Your task to perform on an android device: change keyboard looks Image 0: 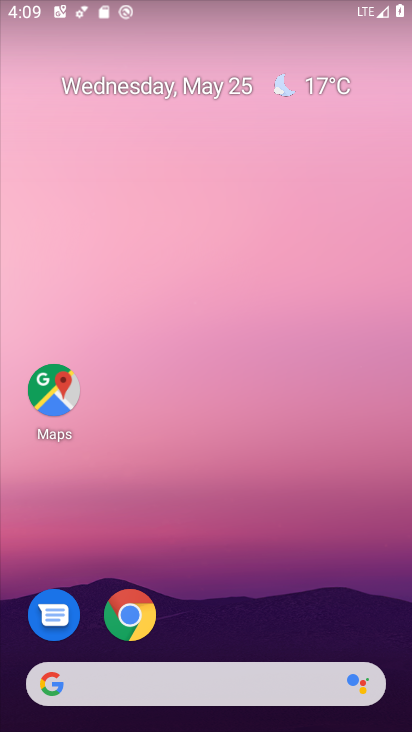
Step 0: drag from (246, 337) to (195, 22)
Your task to perform on an android device: change keyboard looks Image 1: 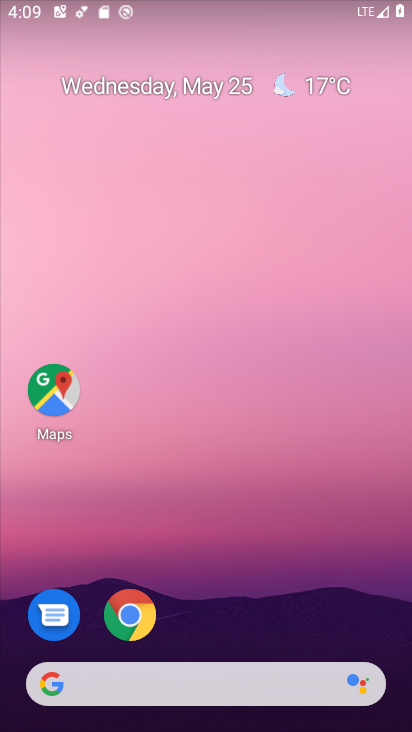
Step 1: drag from (228, 533) to (215, 80)
Your task to perform on an android device: change keyboard looks Image 2: 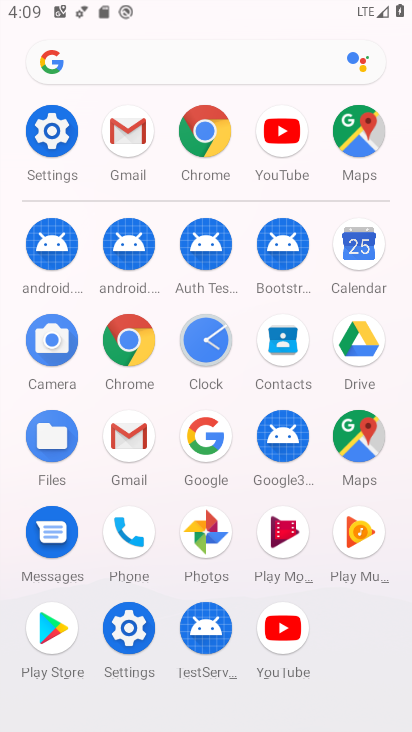
Step 2: click (46, 133)
Your task to perform on an android device: change keyboard looks Image 3: 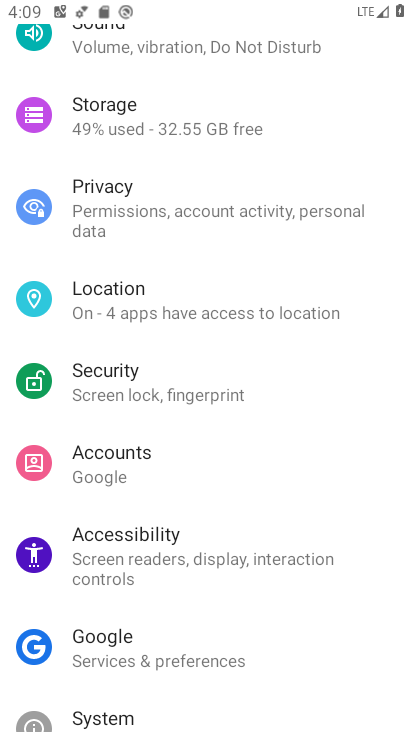
Step 3: drag from (235, 615) to (237, 223)
Your task to perform on an android device: change keyboard looks Image 4: 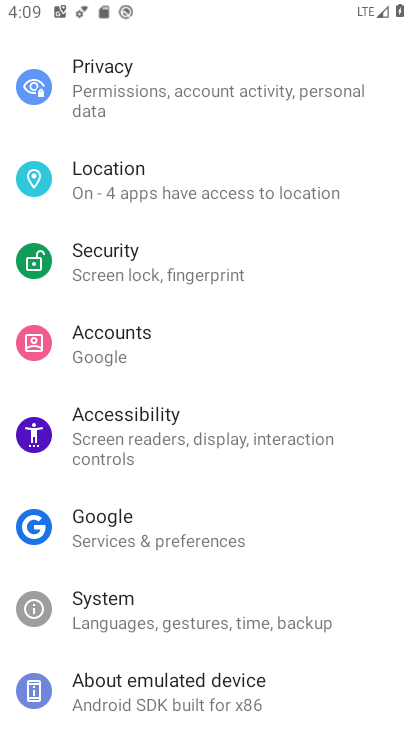
Step 4: click (175, 614)
Your task to perform on an android device: change keyboard looks Image 5: 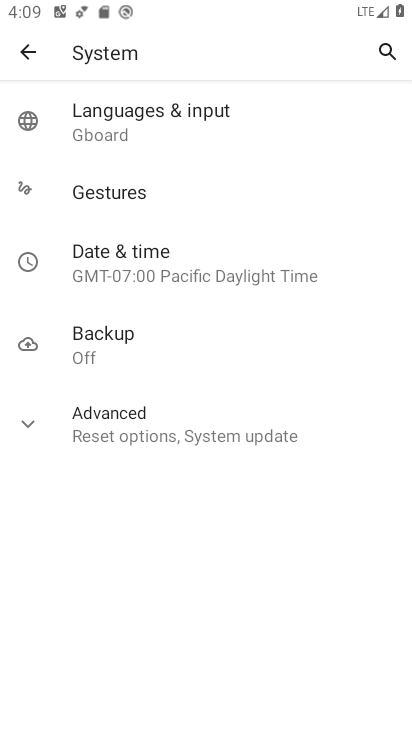
Step 5: click (145, 125)
Your task to perform on an android device: change keyboard looks Image 6: 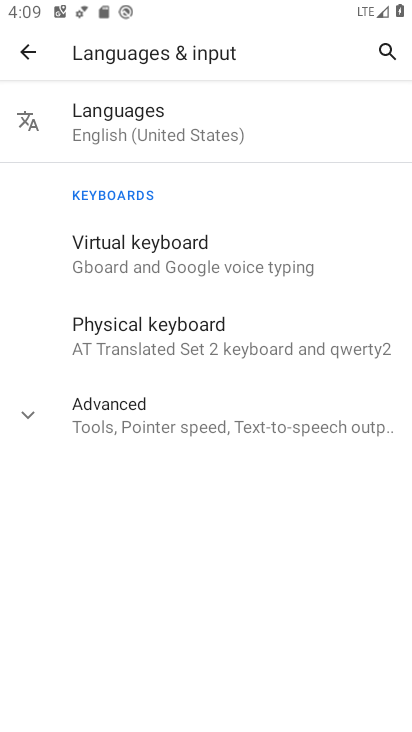
Step 6: click (149, 235)
Your task to perform on an android device: change keyboard looks Image 7: 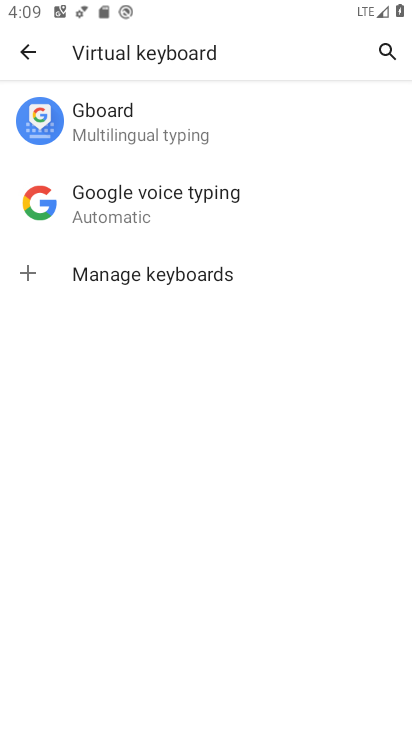
Step 7: click (154, 101)
Your task to perform on an android device: change keyboard looks Image 8: 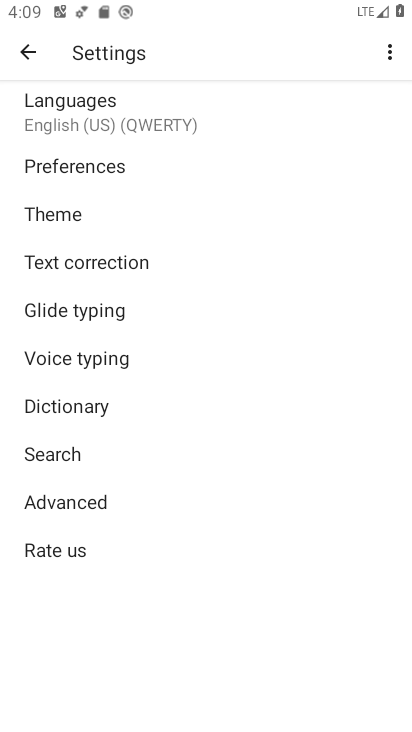
Step 8: click (119, 225)
Your task to perform on an android device: change keyboard looks Image 9: 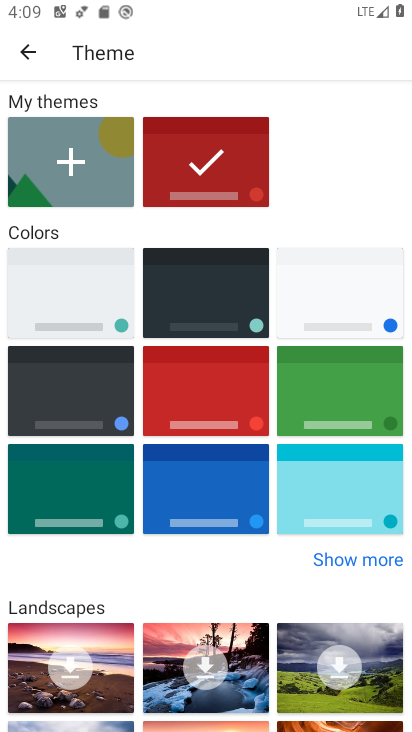
Step 9: click (207, 407)
Your task to perform on an android device: change keyboard looks Image 10: 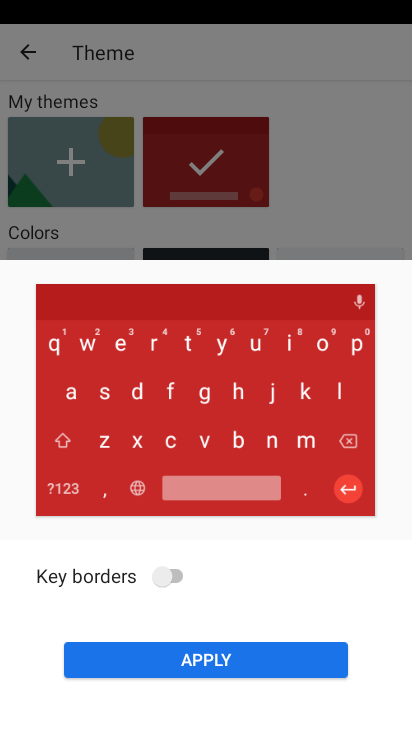
Step 10: click (212, 657)
Your task to perform on an android device: change keyboard looks Image 11: 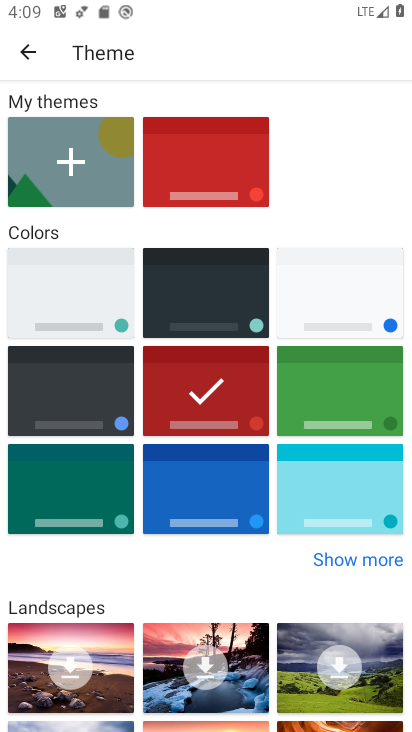
Step 11: task complete